Your task to perform on an android device: read, delete, or share a saved page in the chrome app Image 0: 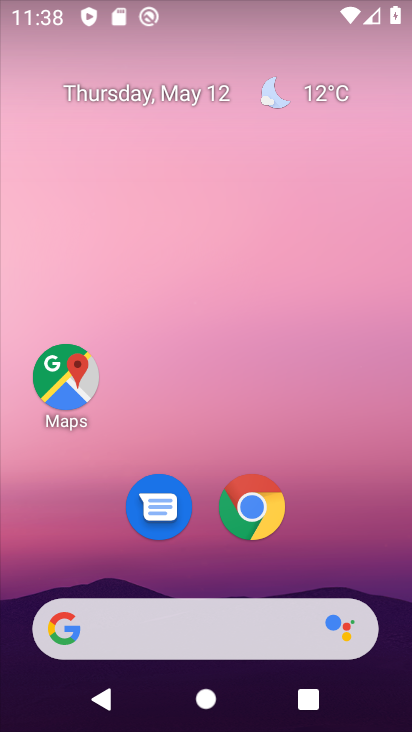
Step 0: click (241, 509)
Your task to perform on an android device: read, delete, or share a saved page in the chrome app Image 1: 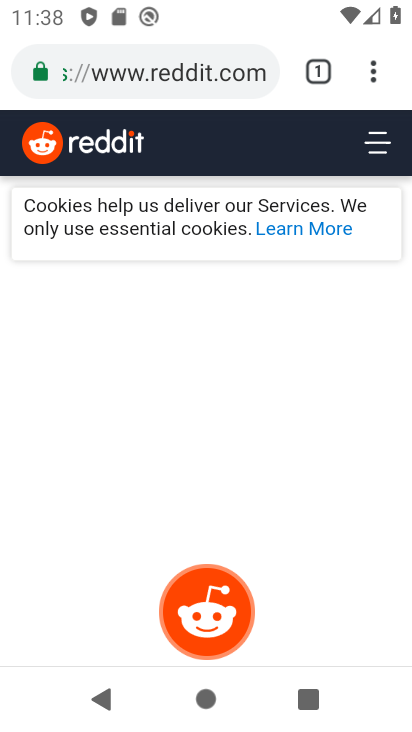
Step 1: task complete